Your task to perform on an android device: turn off sleep mode Image 0: 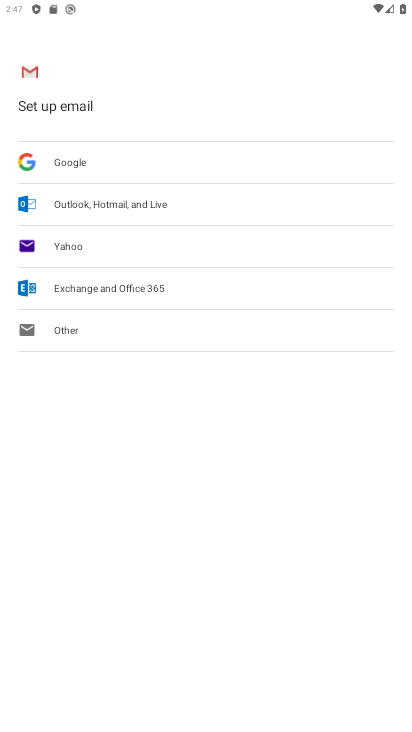
Step 0: press home button
Your task to perform on an android device: turn off sleep mode Image 1: 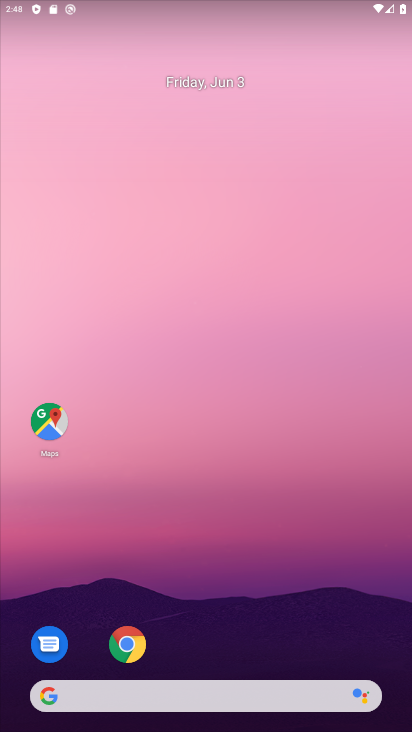
Step 1: drag from (252, 605) to (318, 199)
Your task to perform on an android device: turn off sleep mode Image 2: 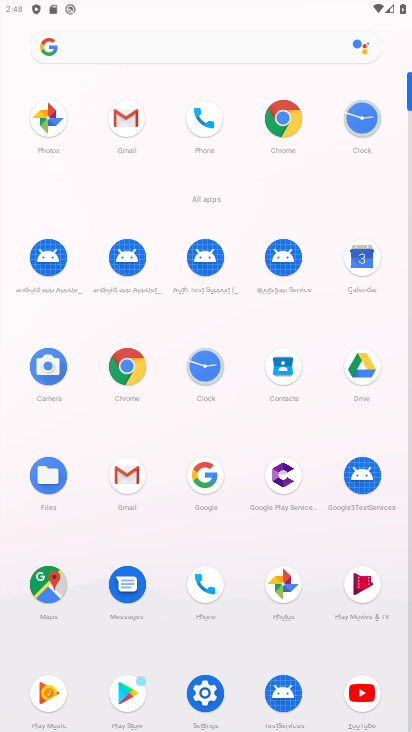
Step 2: drag from (233, 622) to (299, 342)
Your task to perform on an android device: turn off sleep mode Image 3: 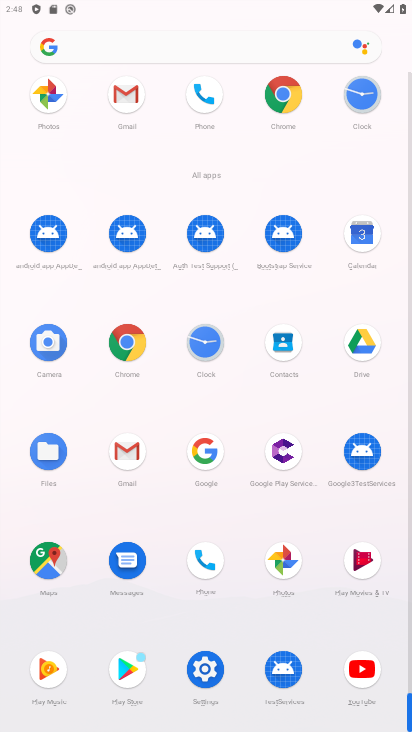
Step 3: click (208, 652)
Your task to perform on an android device: turn off sleep mode Image 4: 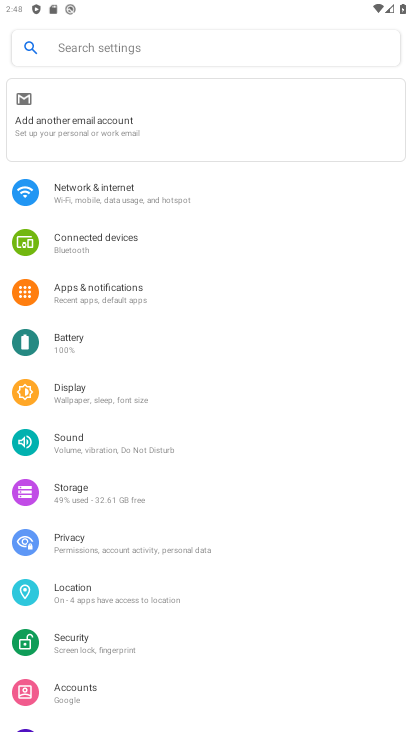
Step 4: click (120, 384)
Your task to perform on an android device: turn off sleep mode Image 5: 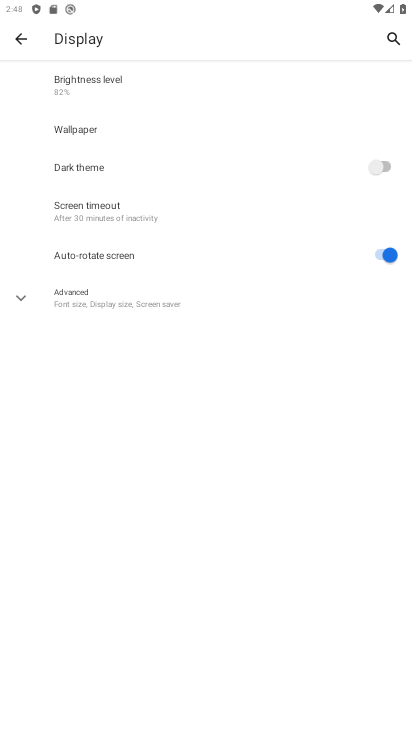
Step 5: task complete